Your task to perform on an android device: Open privacy settings Image 0: 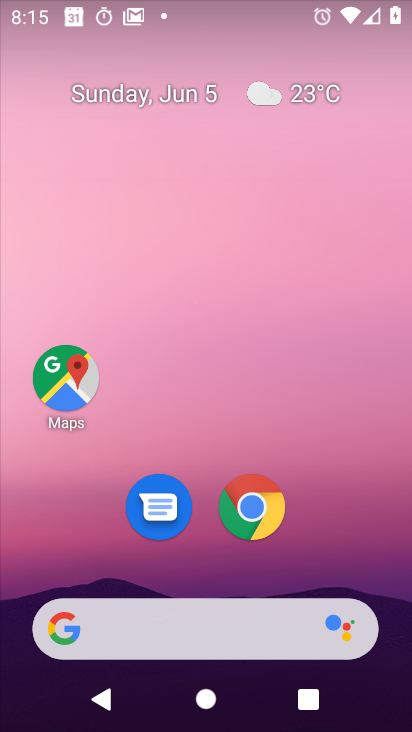
Step 0: drag from (262, 620) to (244, 196)
Your task to perform on an android device: Open privacy settings Image 1: 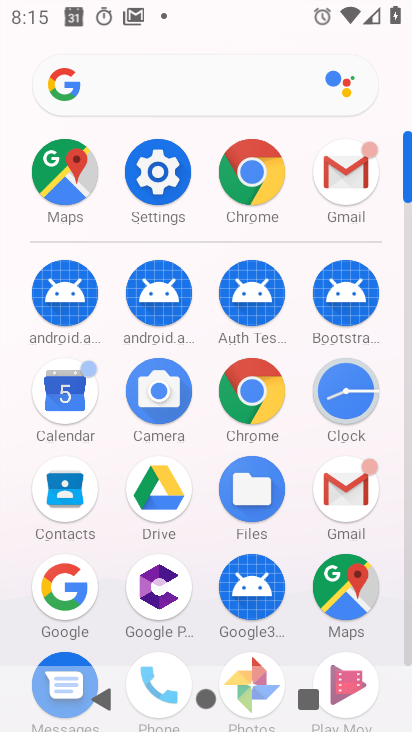
Step 1: click (155, 180)
Your task to perform on an android device: Open privacy settings Image 2: 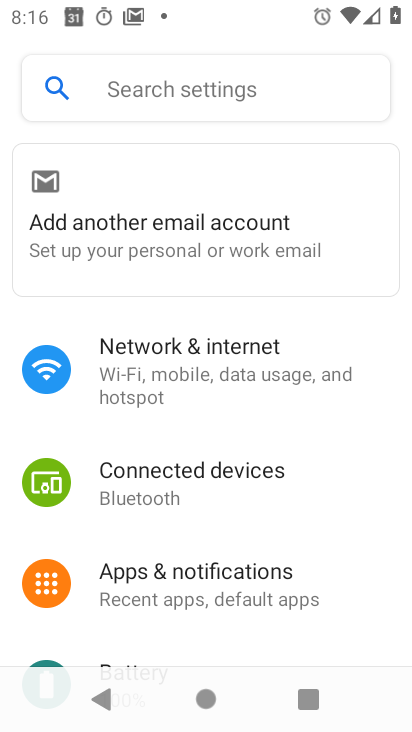
Step 2: click (197, 53)
Your task to perform on an android device: Open privacy settings Image 3: 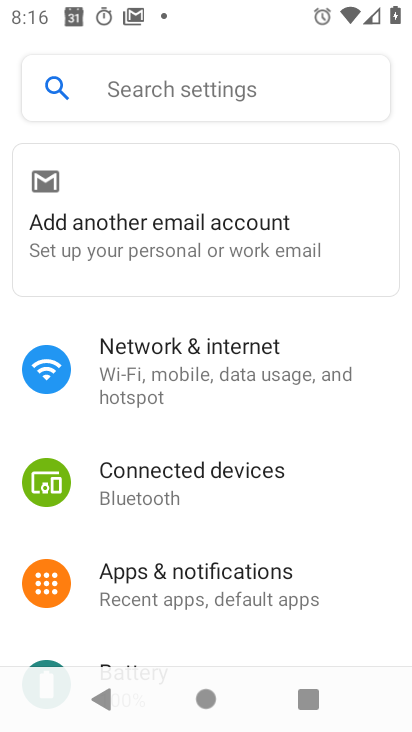
Step 3: click (190, 78)
Your task to perform on an android device: Open privacy settings Image 4: 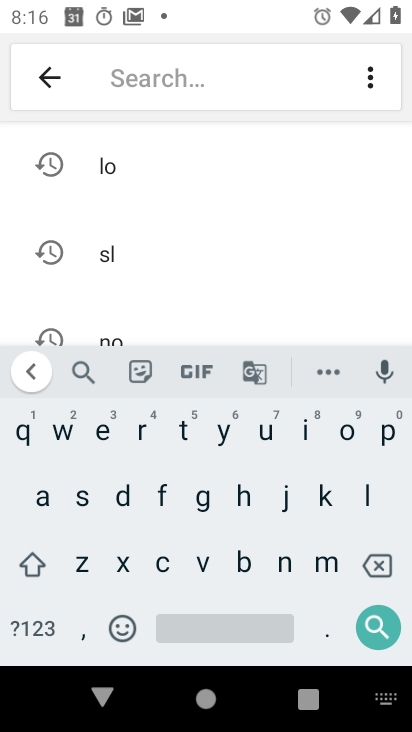
Step 4: click (383, 429)
Your task to perform on an android device: Open privacy settings Image 5: 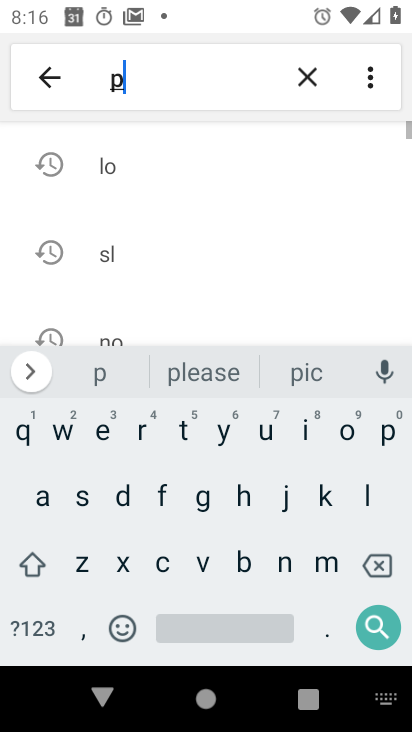
Step 5: click (139, 441)
Your task to perform on an android device: Open privacy settings Image 6: 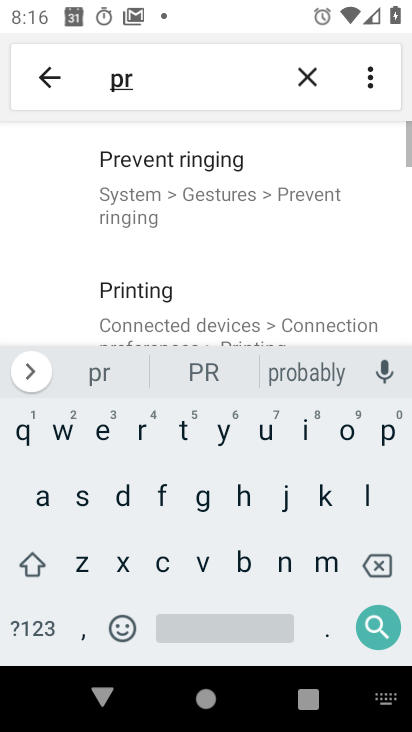
Step 6: click (303, 446)
Your task to perform on an android device: Open privacy settings Image 7: 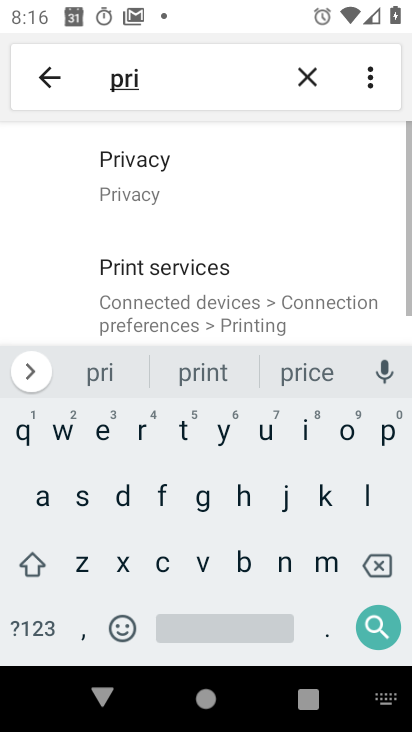
Step 7: click (155, 194)
Your task to perform on an android device: Open privacy settings Image 8: 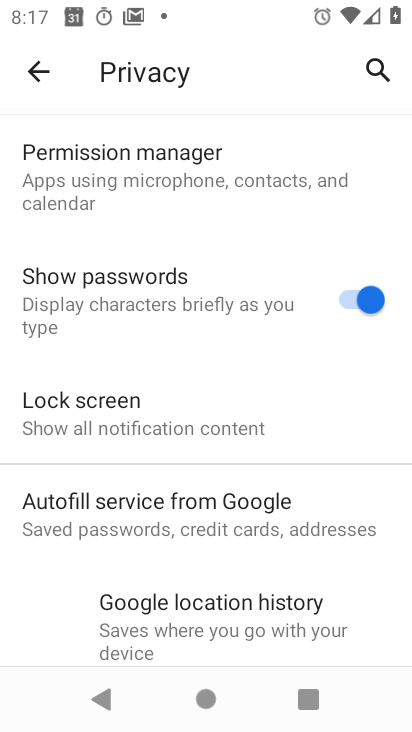
Step 8: task complete